Your task to perform on an android device: Go to location settings Image 0: 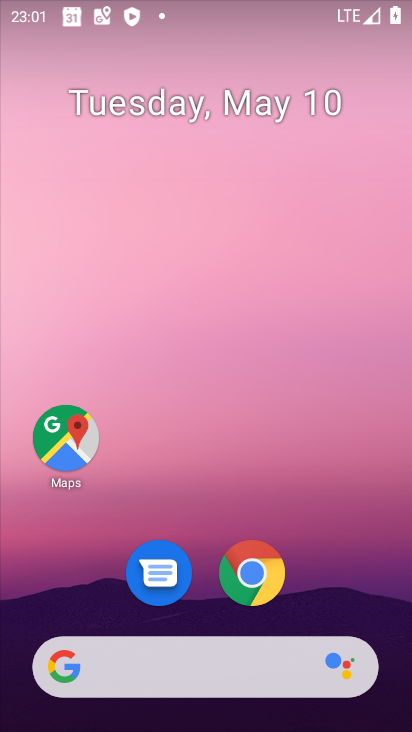
Step 0: click (222, 41)
Your task to perform on an android device: Go to location settings Image 1: 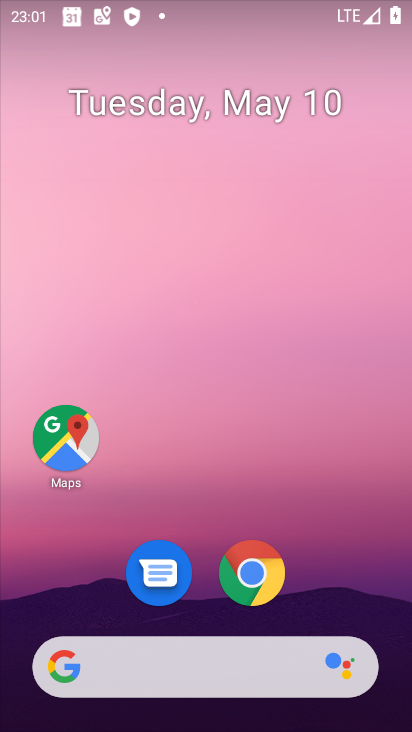
Step 1: drag from (197, 469) to (181, 51)
Your task to perform on an android device: Go to location settings Image 2: 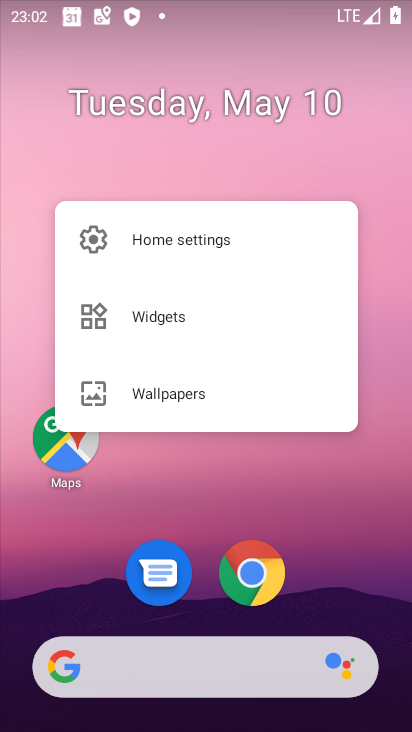
Step 2: click (270, 468)
Your task to perform on an android device: Go to location settings Image 3: 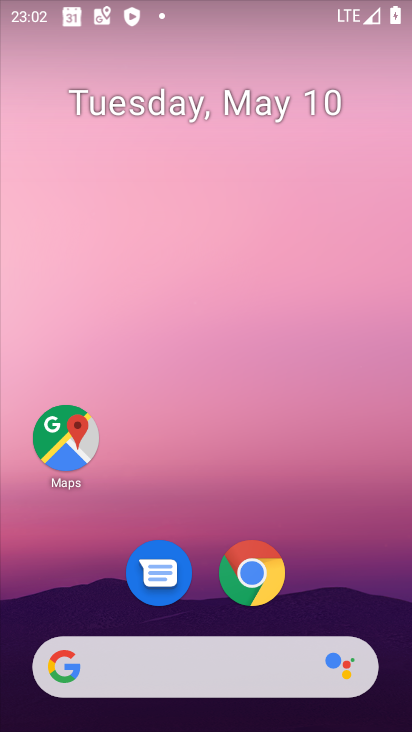
Step 3: drag from (324, 573) to (91, 7)
Your task to perform on an android device: Go to location settings Image 4: 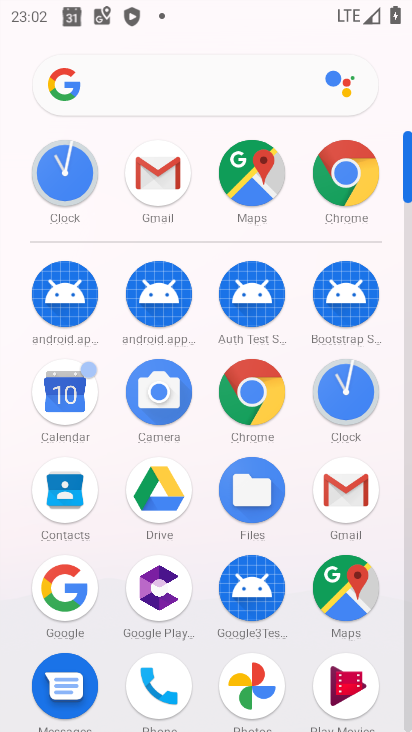
Step 4: drag from (214, 546) to (174, 205)
Your task to perform on an android device: Go to location settings Image 5: 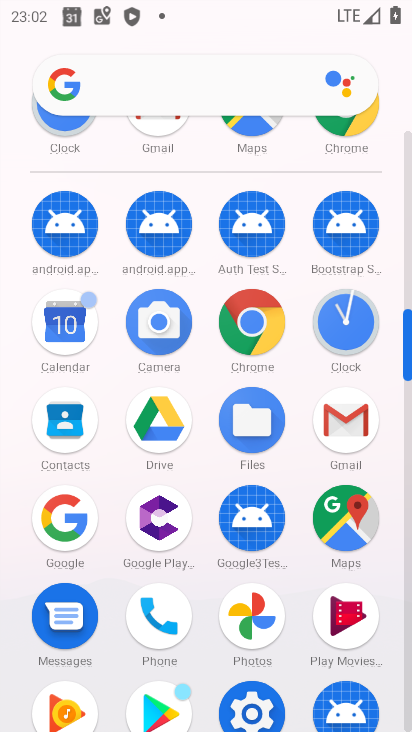
Step 5: click (234, 693)
Your task to perform on an android device: Go to location settings Image 6: 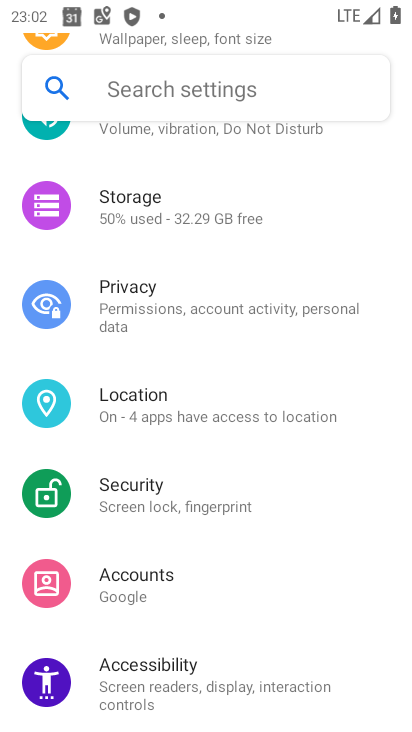
Step 6: click (132, 396)
Your task to perform on an android device: Go to location settings Image 7: 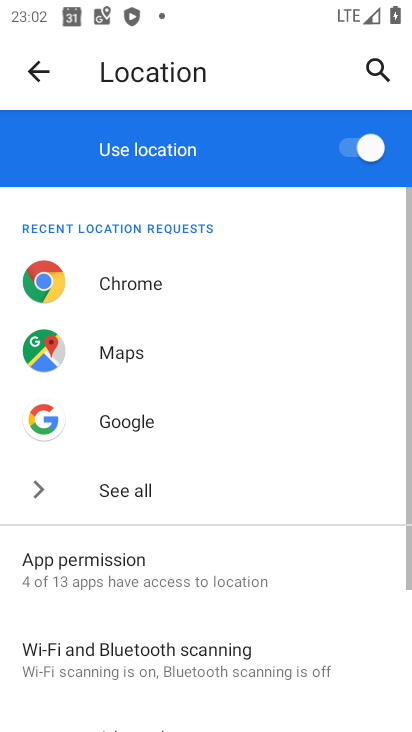
Step 7: task complete